Your task to perform on an android device: Go to Android settings Image 0: 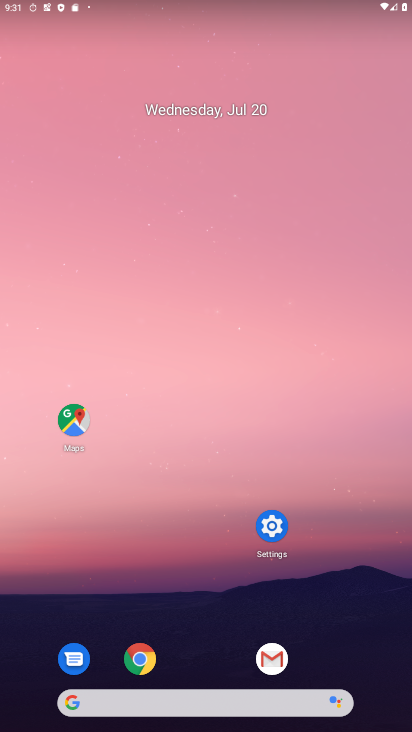
Step 0: click (144, 664)
Your task to perform on an android device: Go to Android settings Image 1: 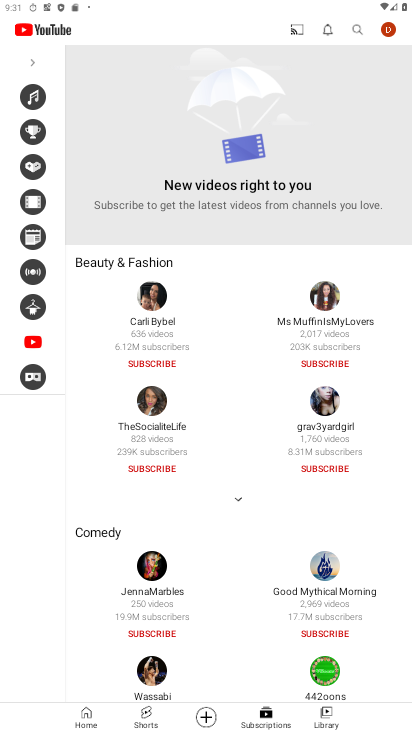
Step 1: press home button
Your task to perform on an android device: Go to Android settings Image 2: 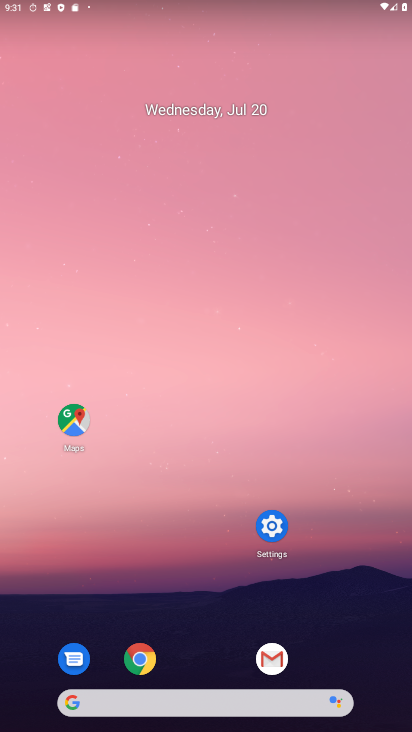
Step 2: click (285, 531)
Your task to perform on an android device: Go to Android settings Image 3: 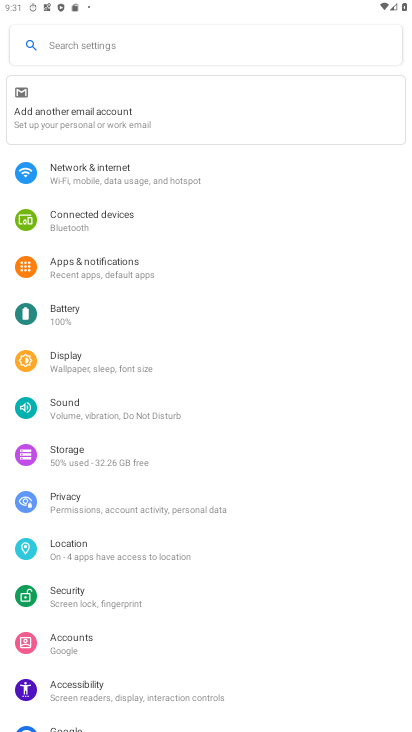
Step 3: click (121, 44)
Your task to perform on an android device: Go to Android settings Image 4: 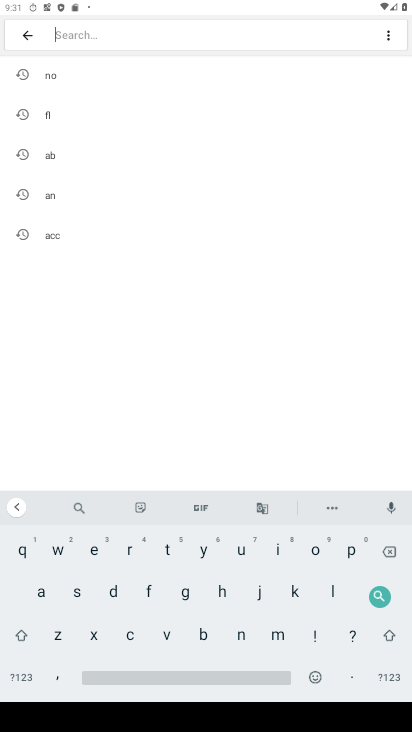
Step 4: click (31, 610)
Your task to perform on an android device: Go to Android settings Image 5: 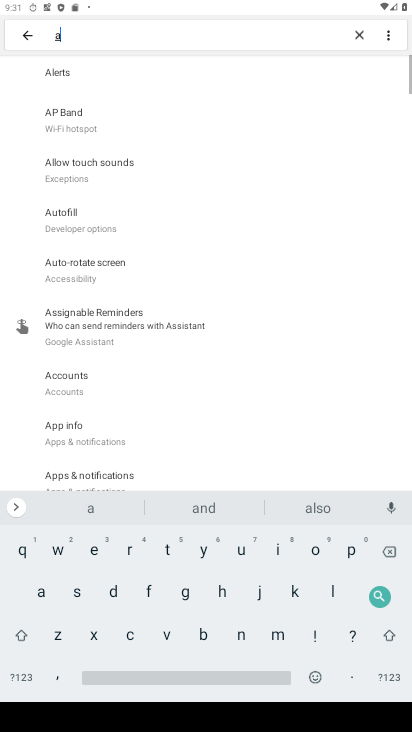
Step 5: click (244, 631)
Your task to perform on an android device: Go to Android settings Image 6: 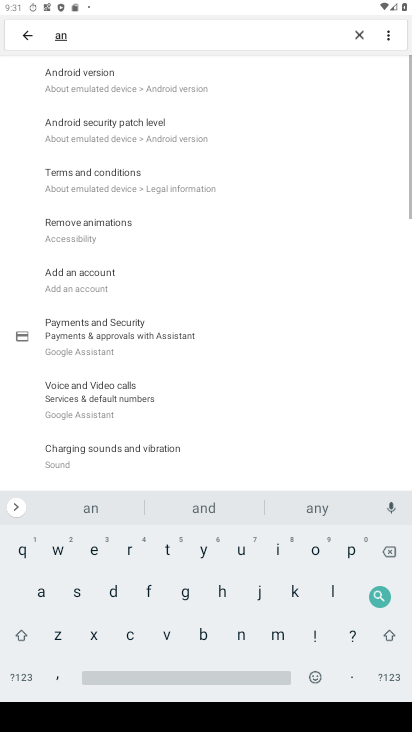
Step 6: click (109, 597)
Your task to perform on an android device: Go to Android settings Image 7: 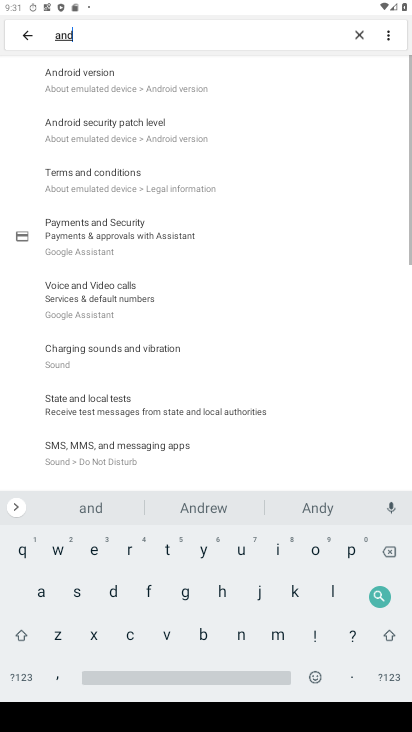
Step 7: click (118, 76)
Your task to perform on an android device: Go to Android settings Image 8: 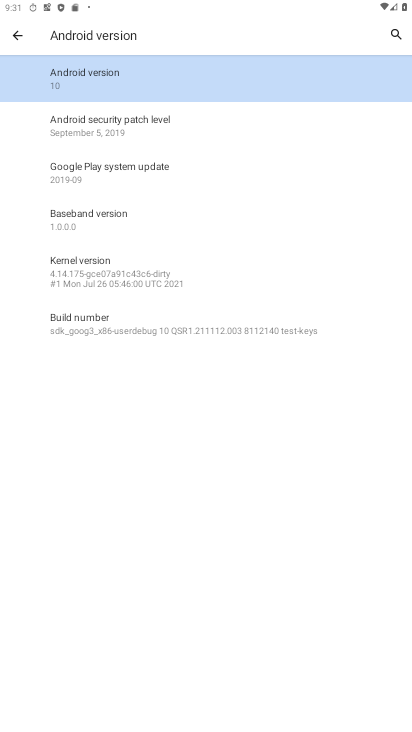
Step 8: click (138, 75)
Your task to perform on an android device: Go to Android settings Image 9: 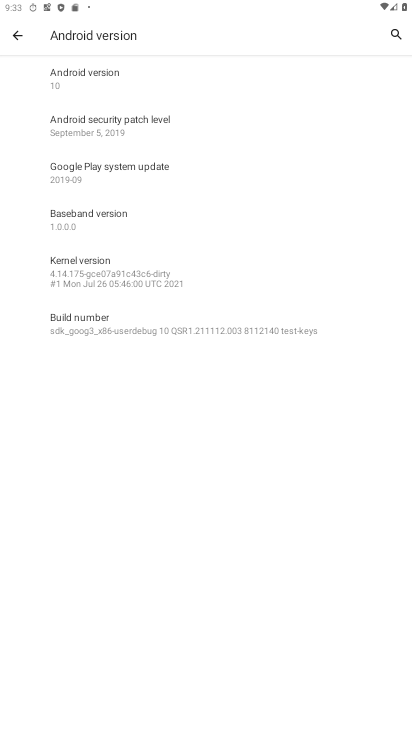
Step 9: task complete